Your task to perform on an android device: move an email to a new category in the gmail app Image 0: 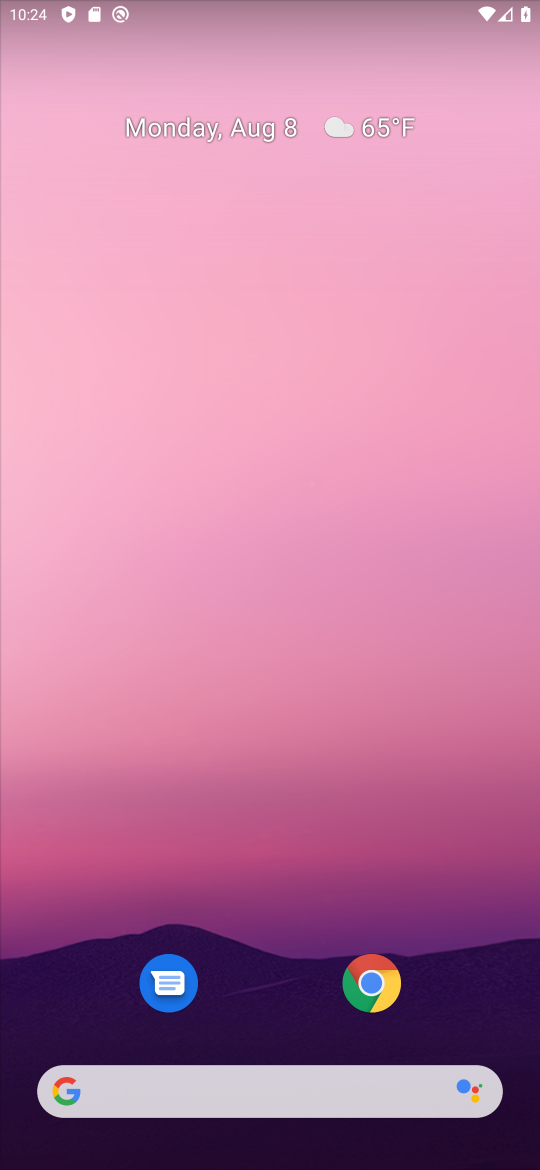
Step 0: drag from (280, 1013) to (247, 82)
Your task to perform on an android device: move an email to a new category in the gmail app Image 1: 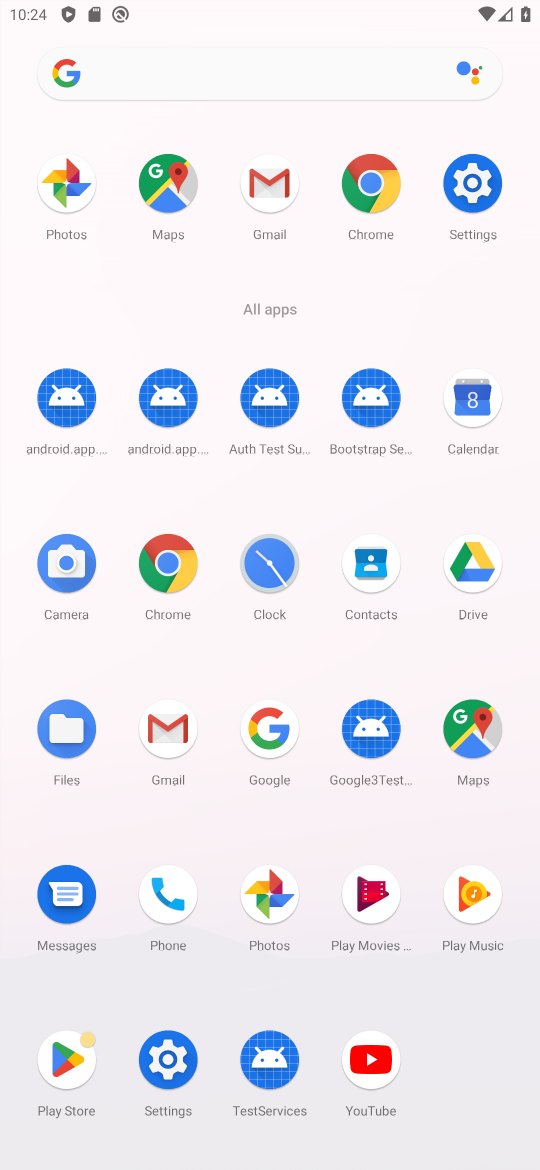
Step 1: click (282, 223)
Your task to perform on an android device: move an email to a new category in the gmail app Image 2: 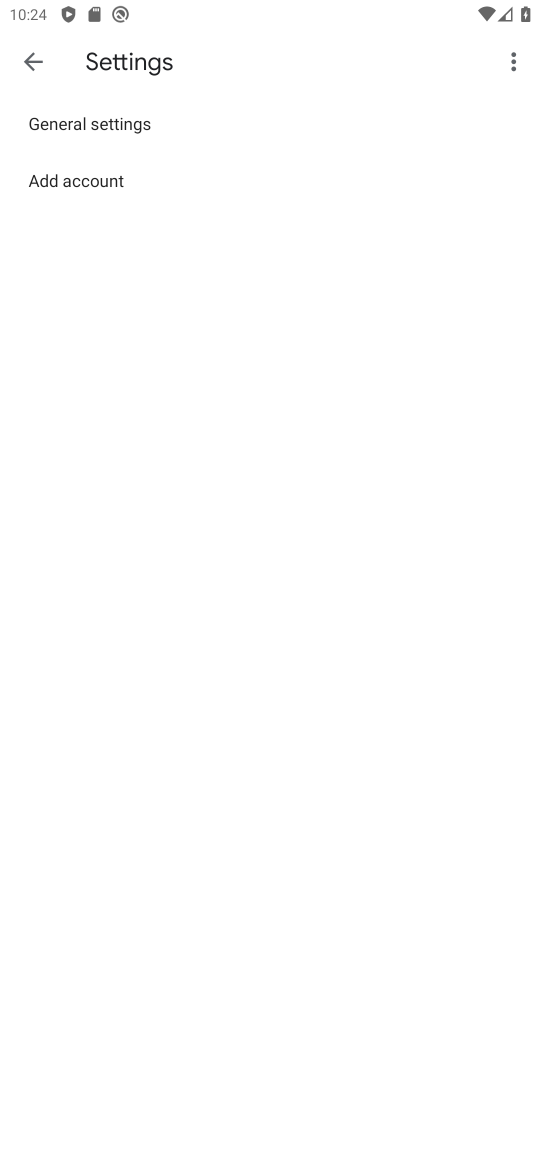
Step 2: task complete